Your task to perform on an android device: Open Amazon Image 0: 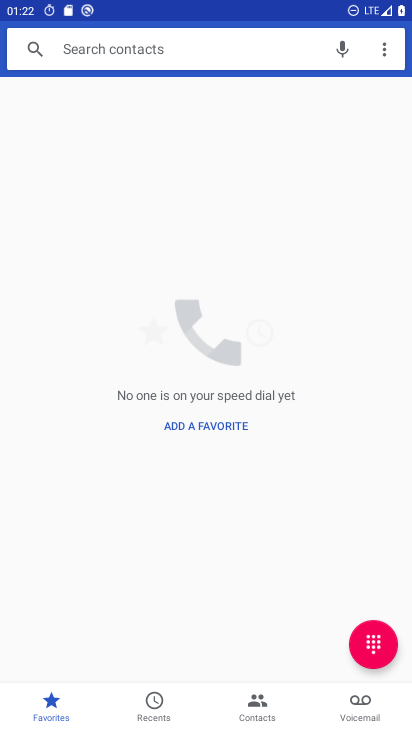
Step 0: press home button
Your task to perform on an android device: Open Amazon Image 1: 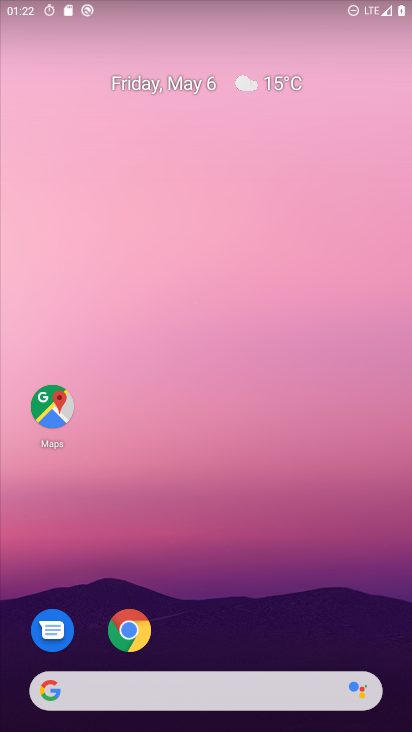
Step 1: click (125, 634)
Your task to perform on an android device: Open Amazon Image 2: 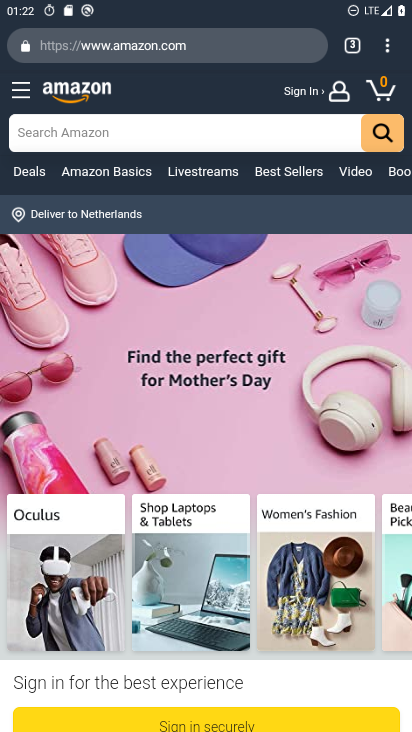
Step 2: task complete